Your task to perform on an android device: open chrome privacy settings Image 0: 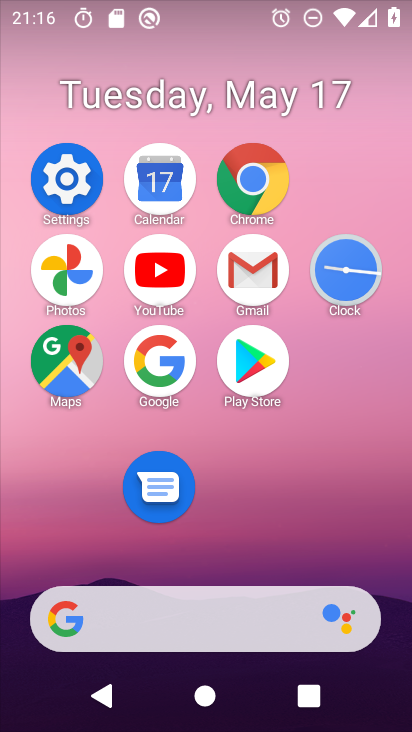
Step 0: click (237, 176)
Your task to perform on an android device: open chrome privacy settings Image 1: 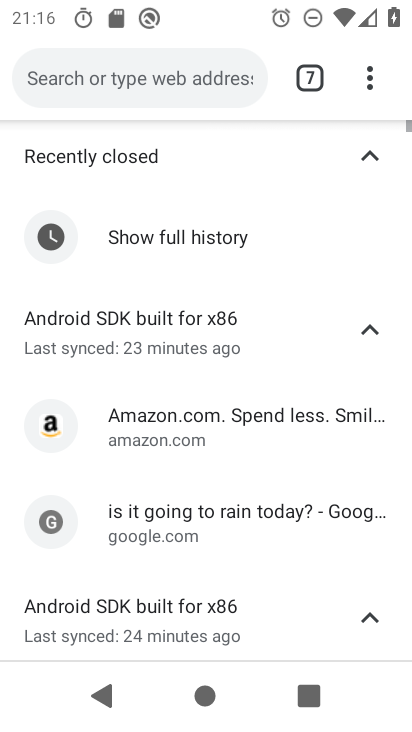
Step 1: click (370, 87)
Your task to perform on an android device: open chrome privacy settings Image 2: 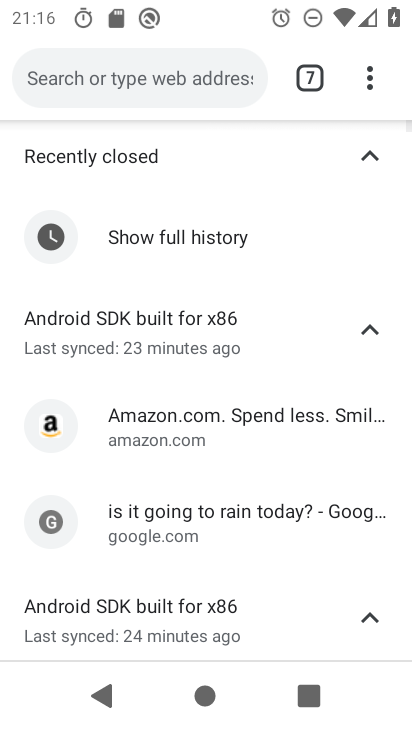
Step 2: click (376, 102)
Your task to perform on an android device: open chrome privacy settings Image 3: 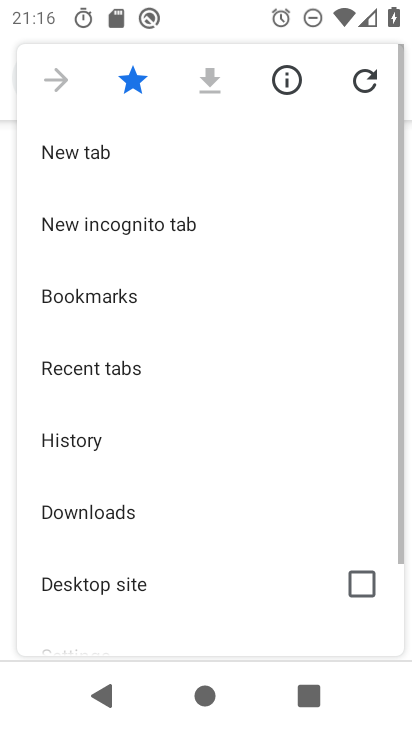
Step 3: drag from (209, 499) to (271, 161)
Your task to perform on an android device: open chrome privacy settings Image 4: 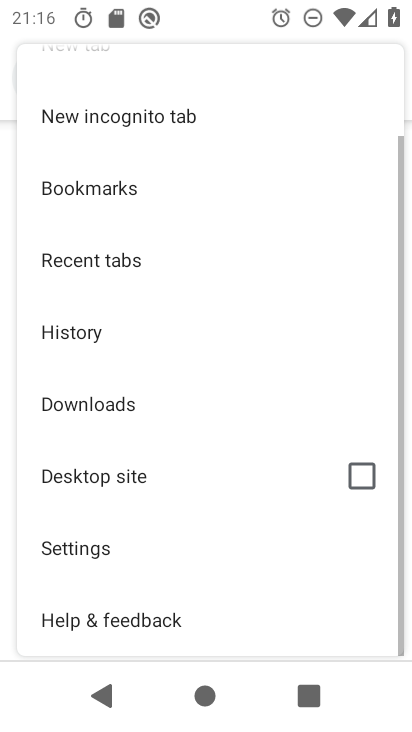
Step 4: click (129, 539)
Your task to perform on an android device: open chrome privacy settings Image 5: 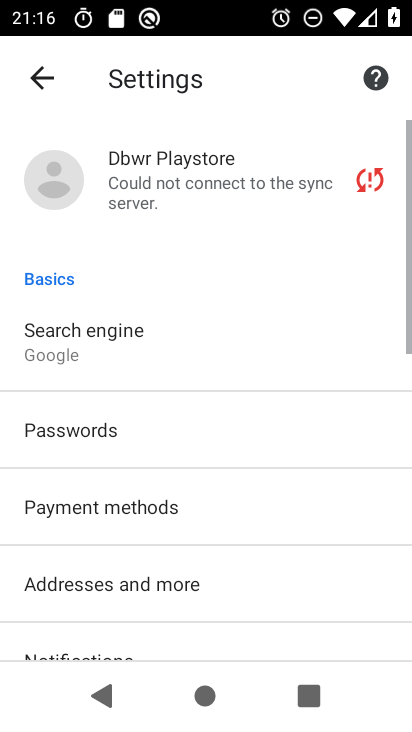
Step 5: drag from (129, 539) to (203, 191)
Your task to perform on an android device: open chrome privacy settings Image 6: 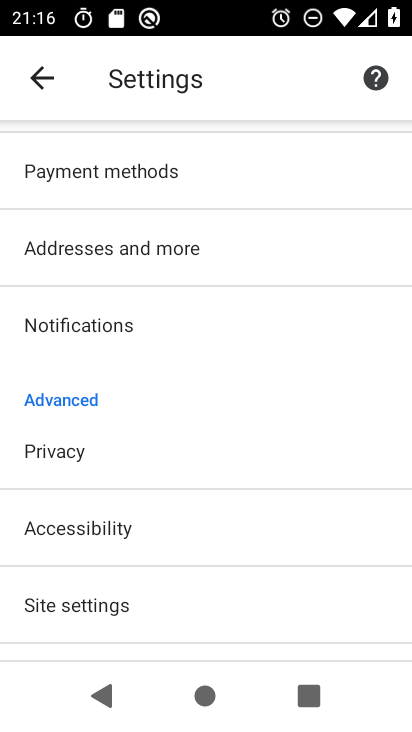
Step 6: click (141, 447)
Your task to perform on an android device: open chrome privacy settings Image 7: 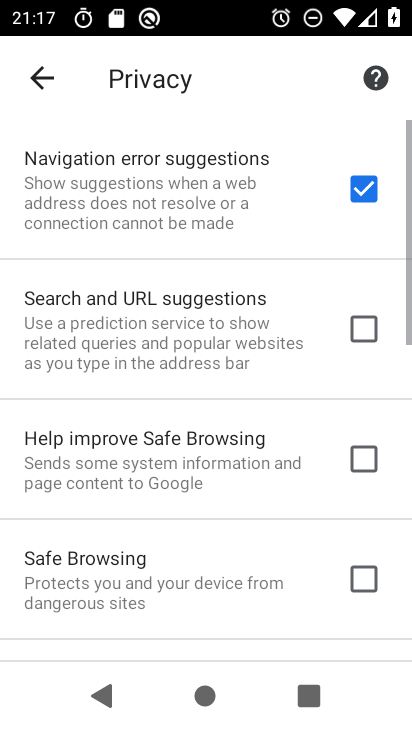
Step 7: task complete